Your task to perform on an android device: set default search engine in the chrome app Image 0: 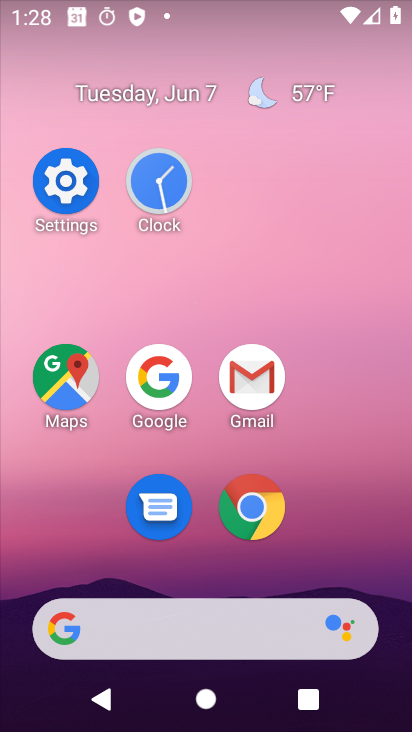
Step 0: click (269, 519)
Your task to perform on an android device: set default search engine in the chrome app Image 1: 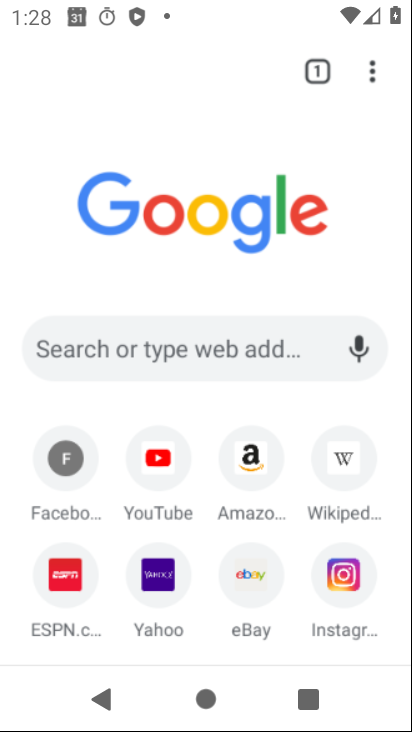
Step 1: click (367, 84)
Your task to perform on an android device: set default search engine in the chrome app Image 2: 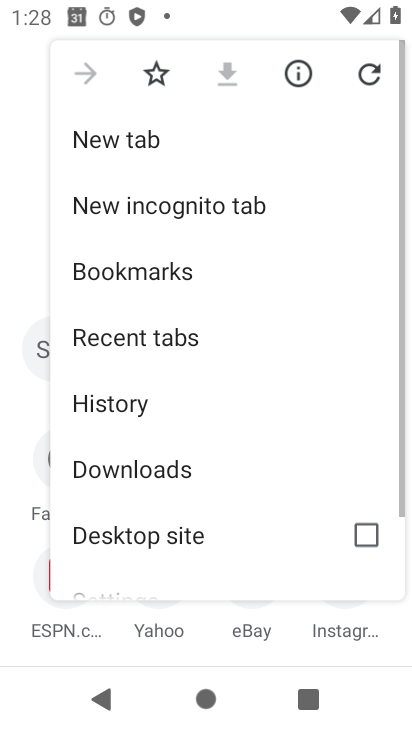
Step 2: drag from (236, 513) to (298, 210)
Your task to perform on an android device: set default search engine in the chrome app Image 3: 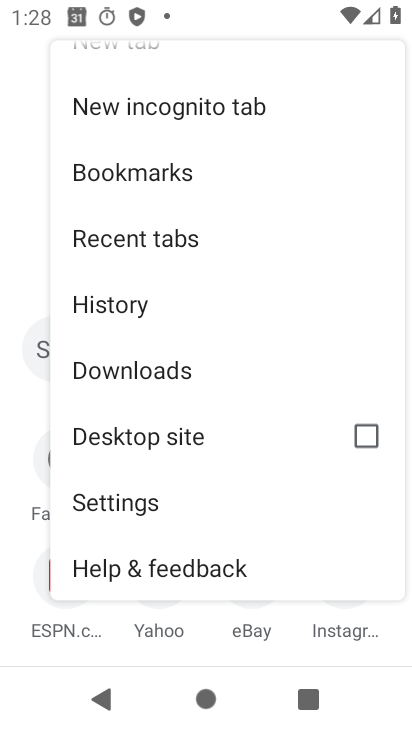
Step 3: click (245, 510)
Your task to perform on an android device: set default search engine in the chrome app Image 4: 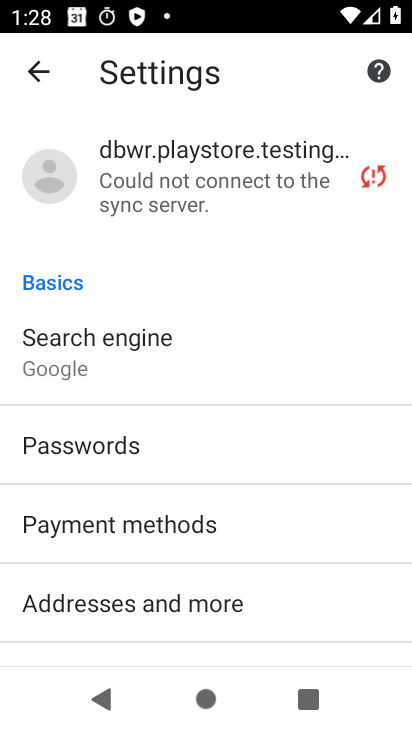
Step 4: drag from (240, 535) to (241, 300)
Your task to perform on an android device: set default search engine in the chrome app Image 5: 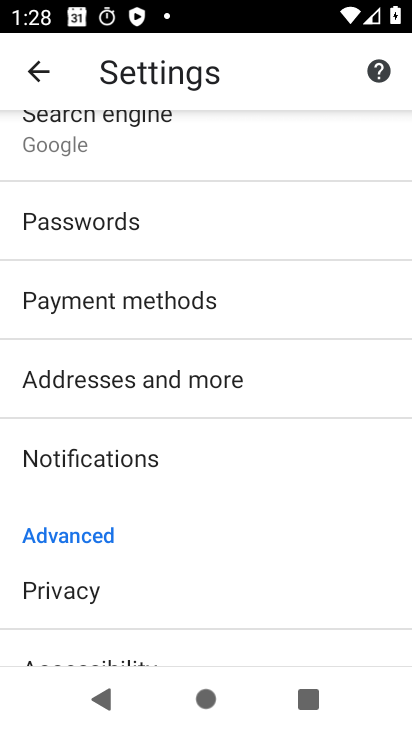
Step 5: click (248, 162)
Your task to perform on an android device: set default search engine in the chrome app Image 6: 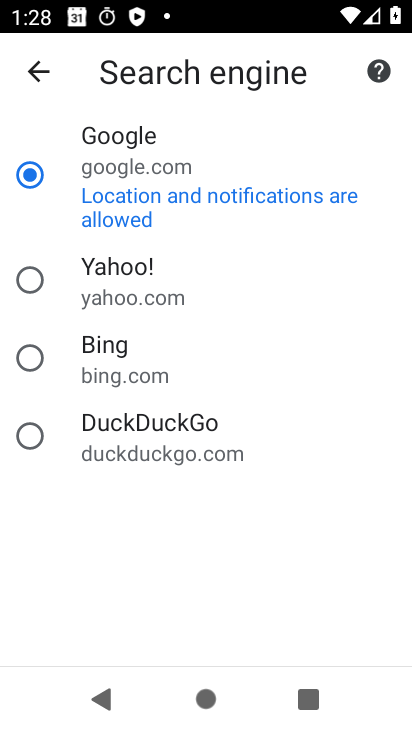
Step 6: task complete